Your task to perform on an android device: turn off location history Image 0: 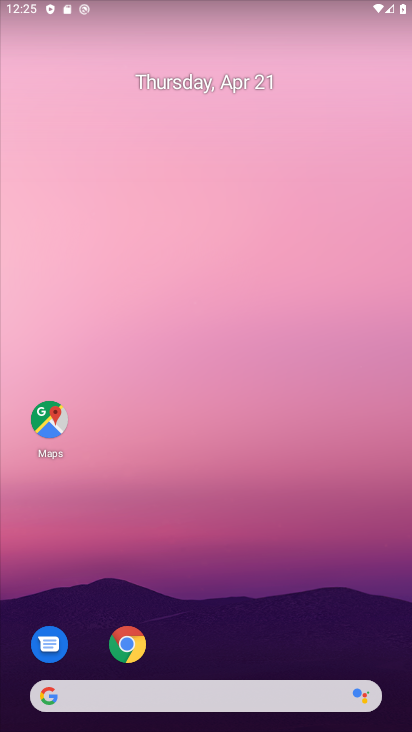
Step 0: drag from (266, 588) to (269, 199)
Your task to perform on an android device: turn off location history Image 1: 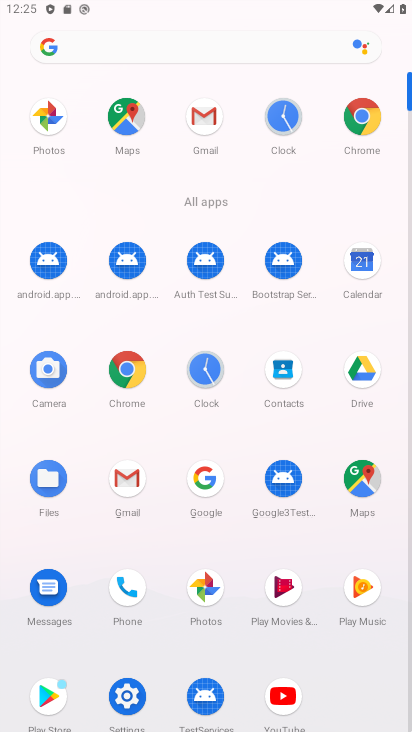
Step 1: click (132, 129)
Your task to perform on an android device: turn off location history Image 2: 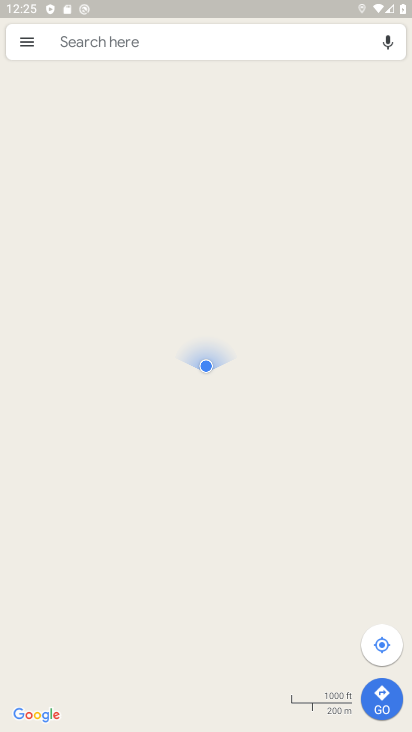
Step 2: click (24, 50)
Your task to perform on an android device: turn off location history Image 3: 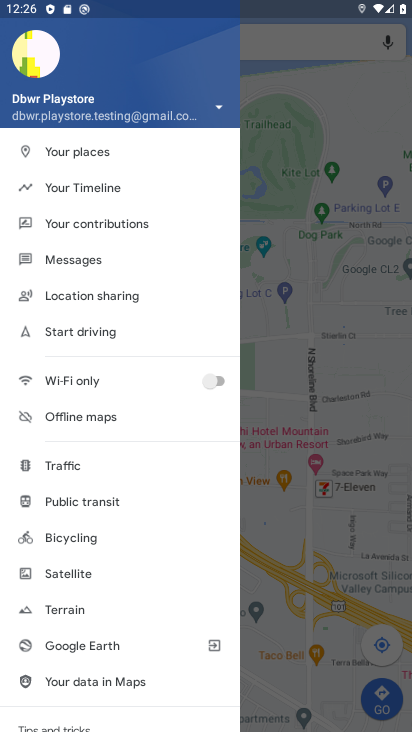
Step 3: click (113, 197)
Your task to perform on an android device: turn off location history Image 4: 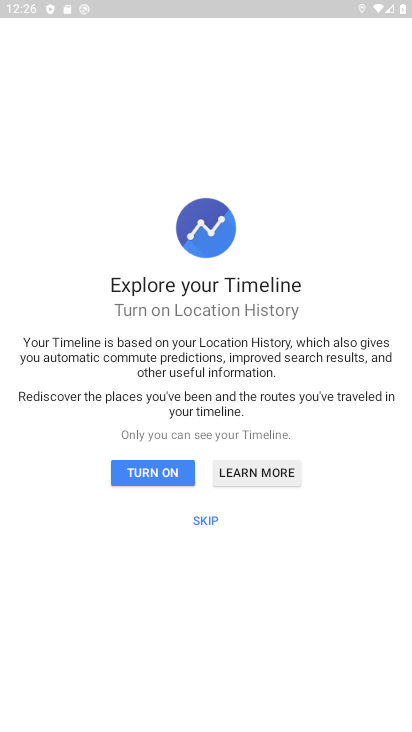
Step 4: click (192, 514)
Your task to perform on an android device: turn off location history Image 5: 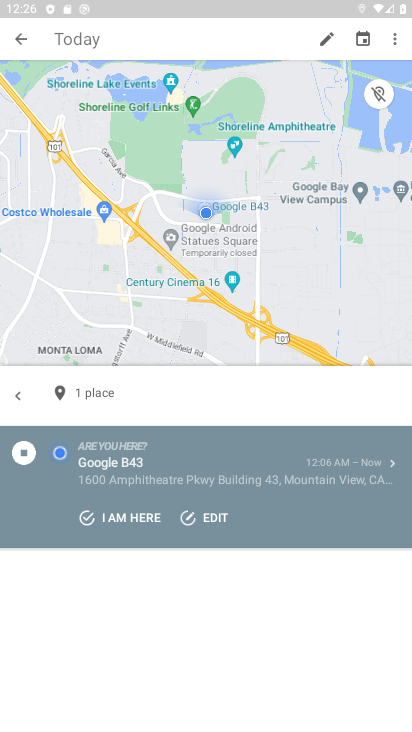
Step 5: click (403, 44)
Your task to perform on an android device: turn off location history Image 6: 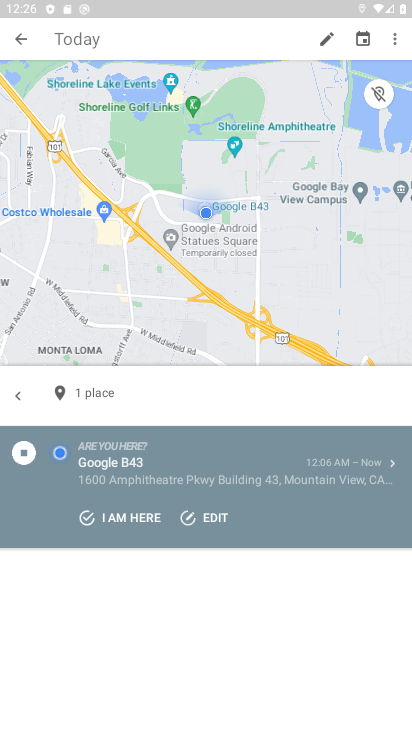
Step 6: click (396, 41)
Your task to perform on an android device: turn off location history Image 7: 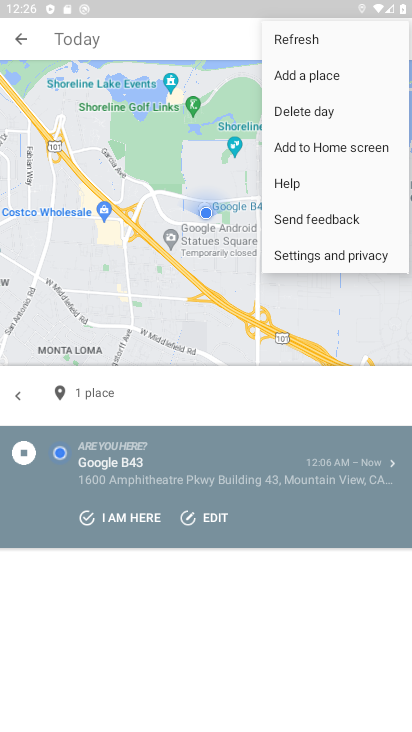
Step 7: click (359, 251)
Your task to perform on an android device: turn off location history Image 8: 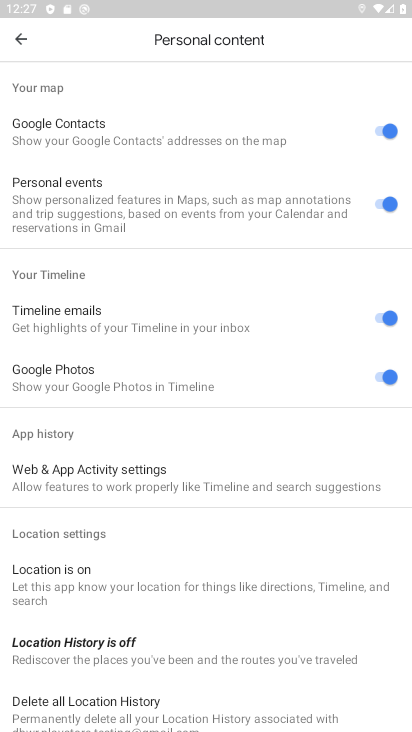
Step 8: click (282, 661)
Your task to perform on an android device: turn off location history Image 9: 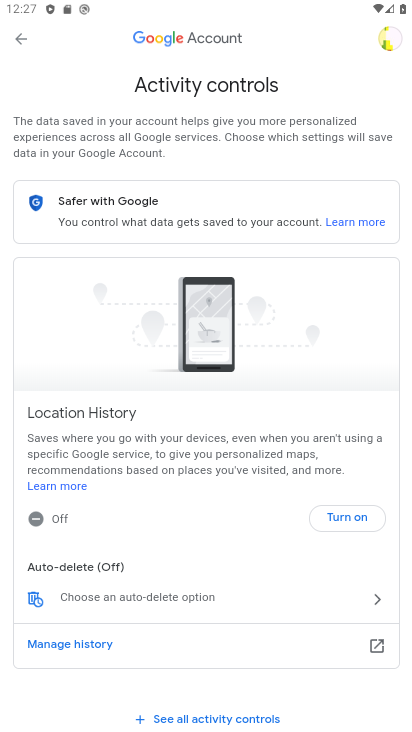
Step 9: task complete